Your task to perform on an android device: Open the calendar and show me this week's events Image 0: 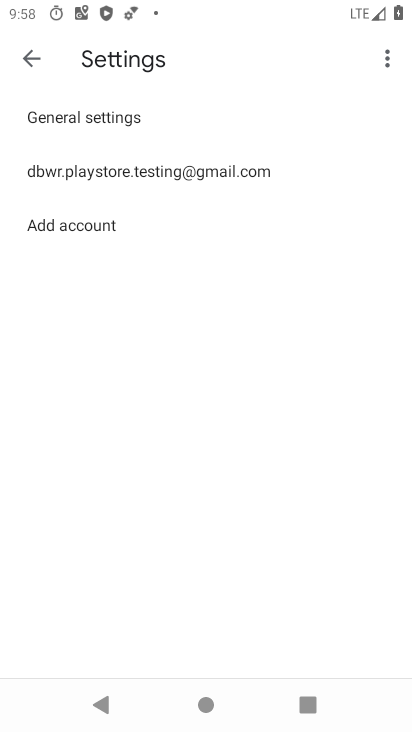
Step 0: press home button
Your task to perform on an android device: Open the calendar and show me this week's events Image 1: 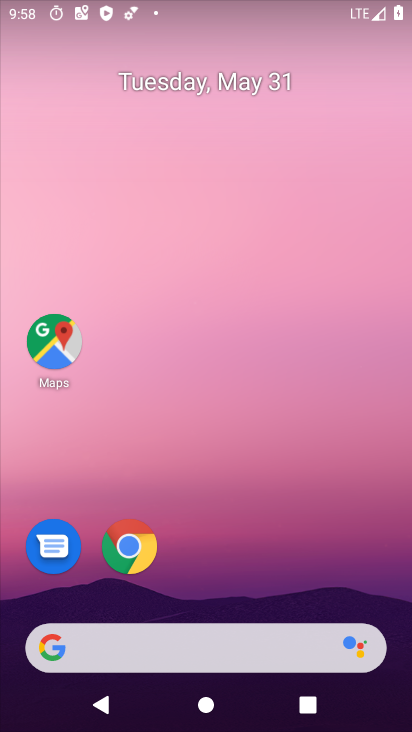
Step 1: drag from (264, 531) to (221, 146)
Your task to perform on an android device: Open the calendar and show me this week's events Image 2: 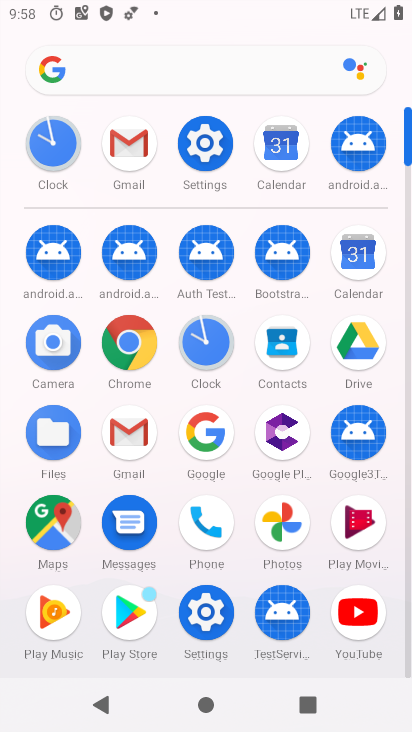
Step 2: click (355, 272)
Your task to perform on an android device: Open the calendar and show me this week's events Image 3: 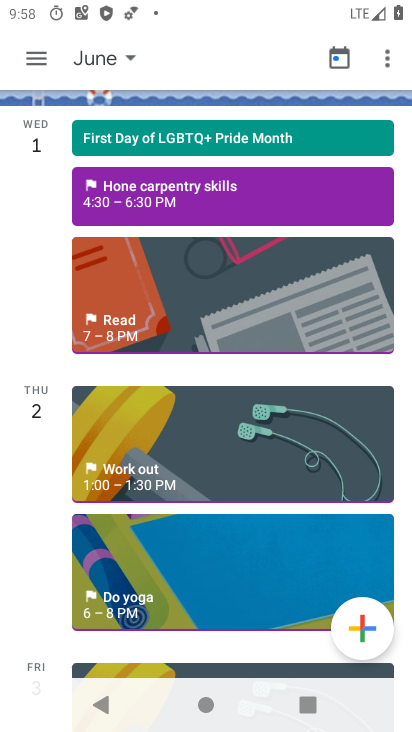
Step 3: click (46, 52)
Your task to perform on an android device: Open the calendar and show me this week's events Image 4: 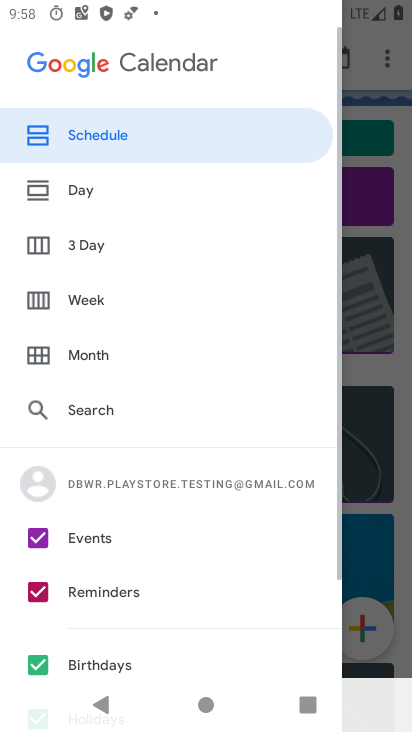
Step 4: click (82, 301)
Your task to perform on an android device: Open the calendar and show me this week's events Image 5: 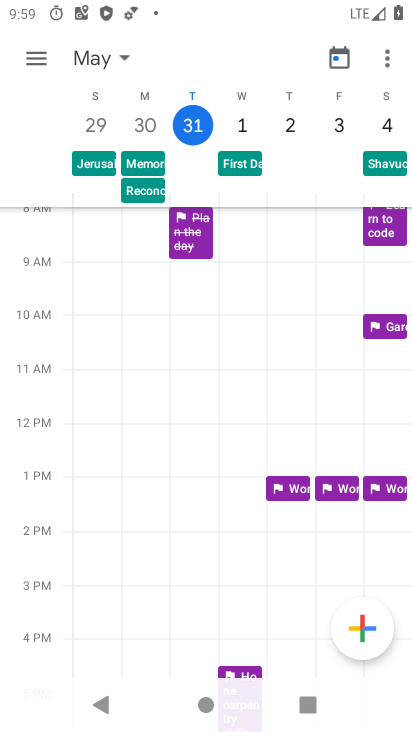
Step 5: task complete